Your task to perform on an android device: Add razer naga to the cart on bestbuy.com, then select checkout. Image 0: 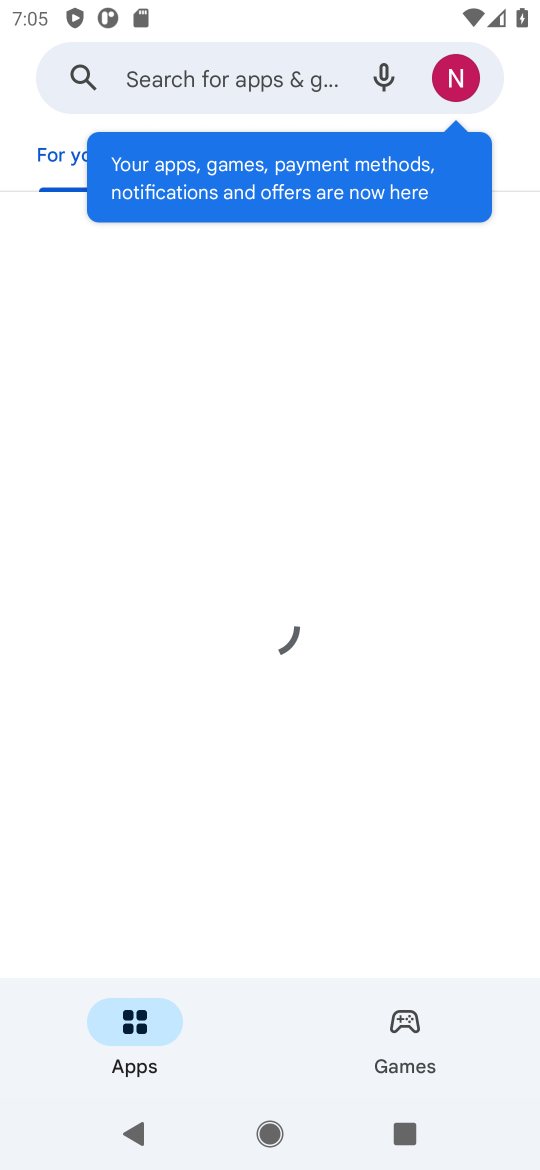
Step 0: press home button
Your task to perform on an android device: Add razer naga to the cart on bestbuy.com, then select checkout. Image 1: 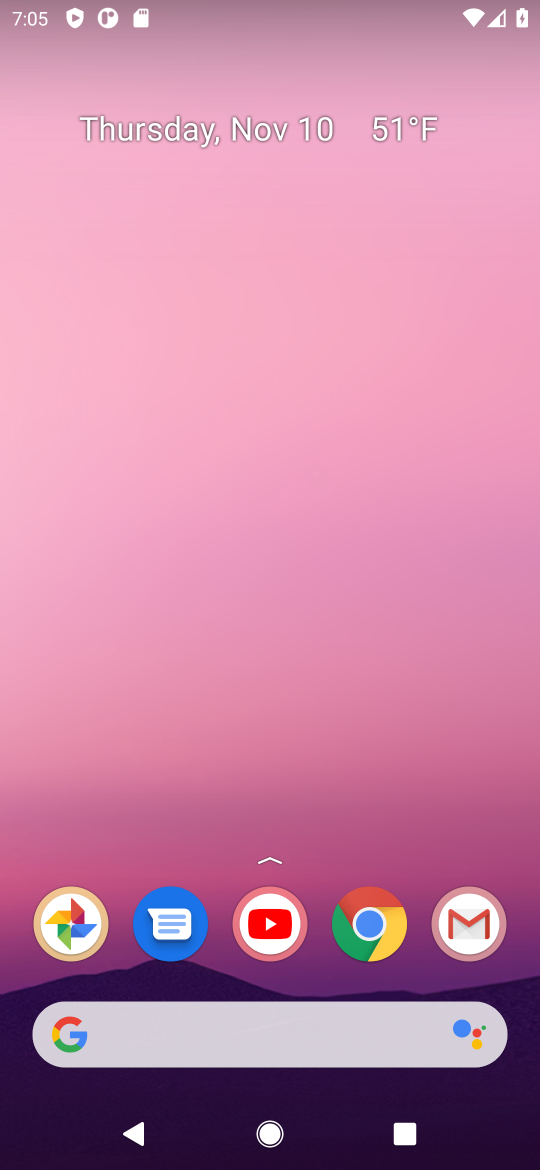
Step 1: click (364, 918)
Your task to perform on an android device: Add razer naga to the cart on bestbuy.com, then select checkout. Image 2: 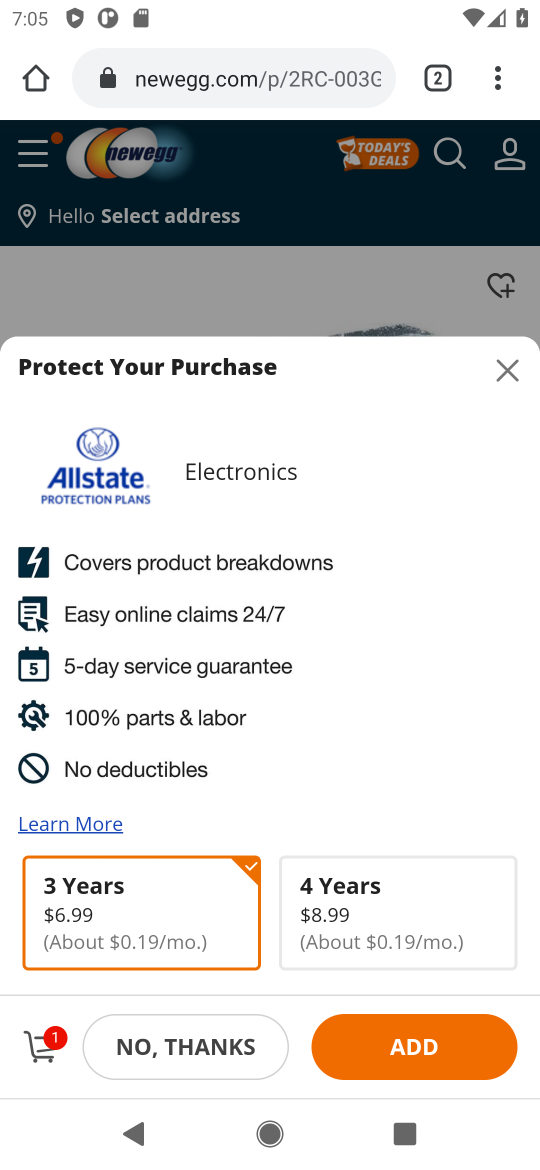
Step 2: click (210, 87)
Your task to perform on an android device: Add razer naga to the cart on bestbuy.com, then select checkout. Image 3: 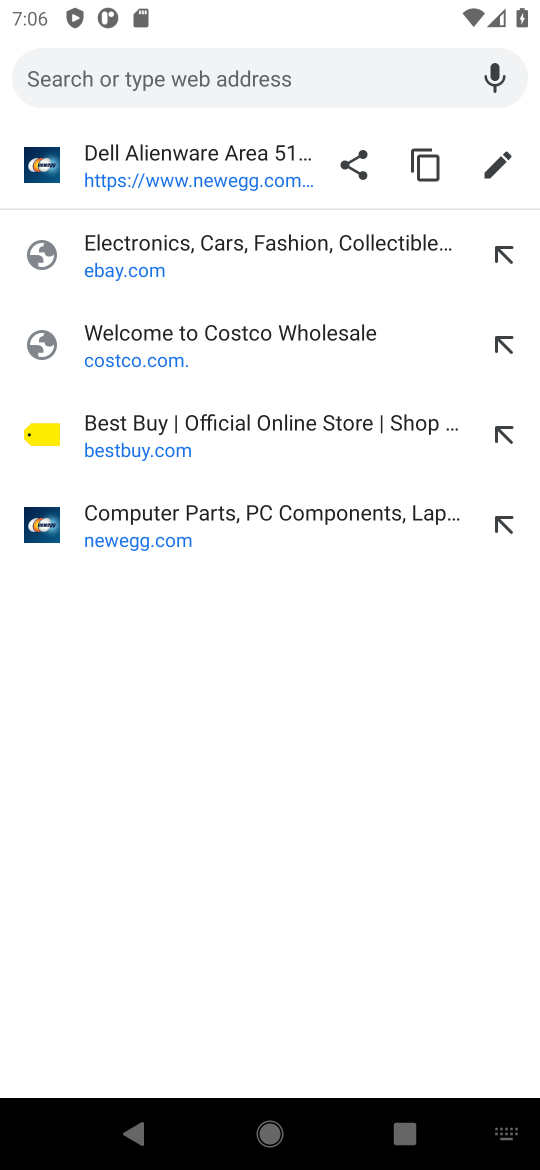
Step 3: click (114, 436)
Your task to perform on an android device: Add razer naga to the cart on bestbuy.com, then select checkout. Image 4: 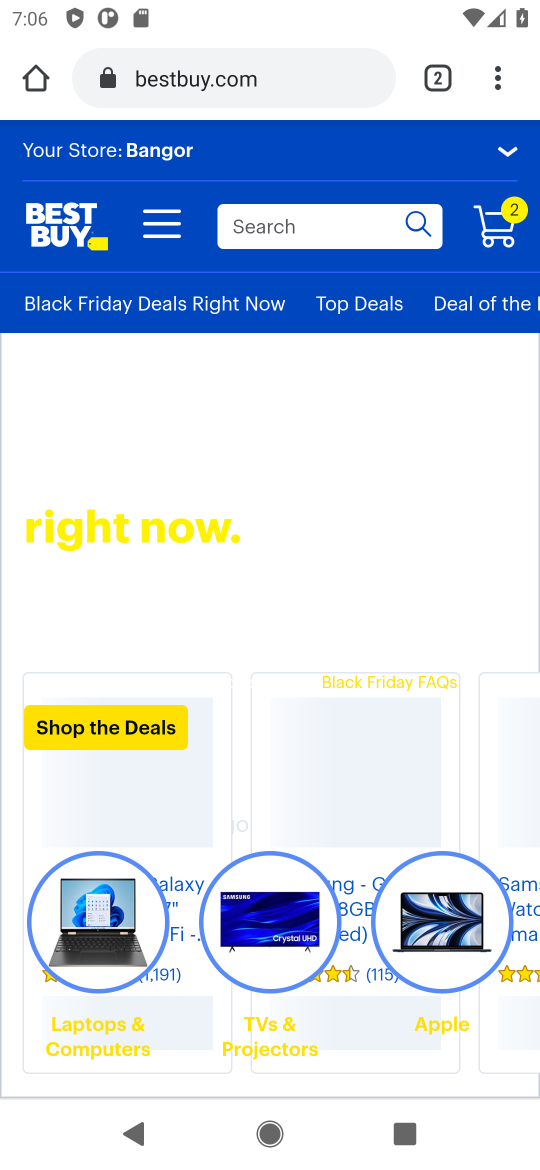
Step 4: click (333, 234)
Your task to perform on an android device: Add razer naga to the cart on bestbuy.com, then select checkout. Image 5: 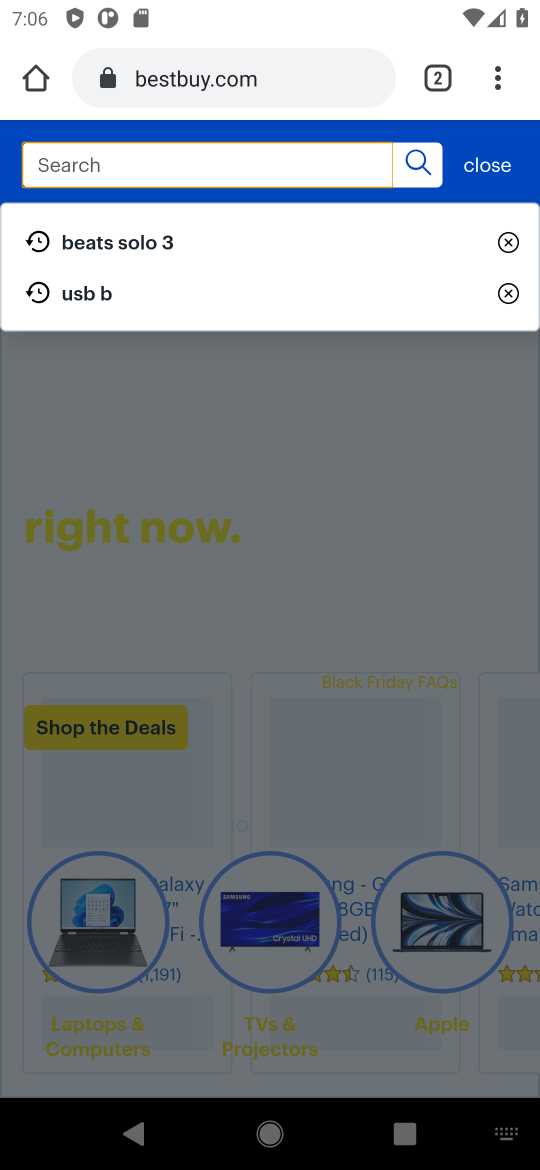
Step 5: type "razer naga"
Your task to perform on an android device: Add razer naga to the cart on bestbuy.com, then select checkout. Image 6: 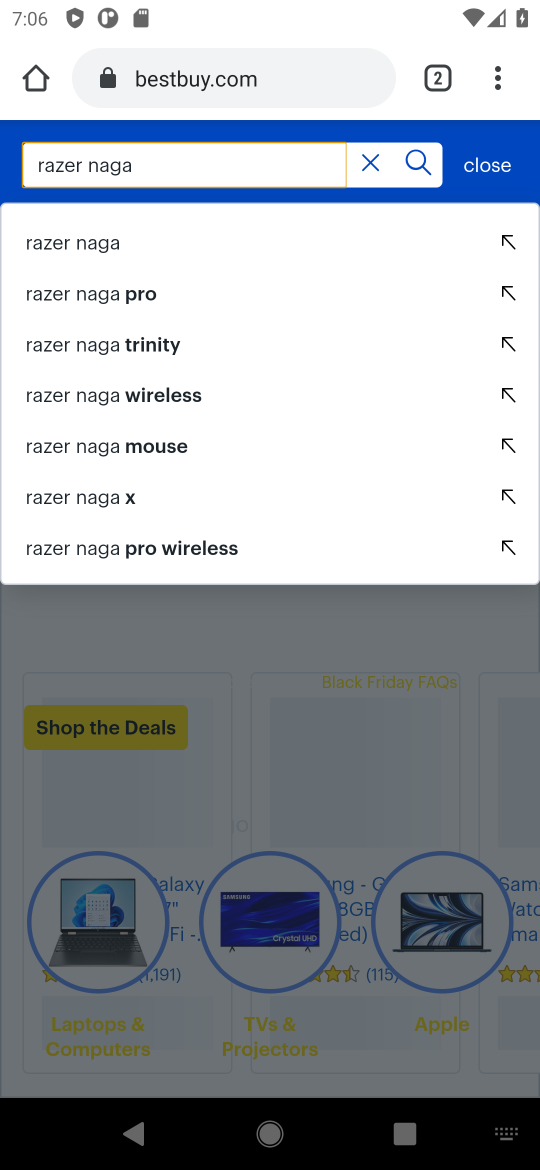
Step 6: click (56, 251)
Your task to perform on an android device: Add razer naga to the cart on bestbuy.com, then select checkout. Image 7: 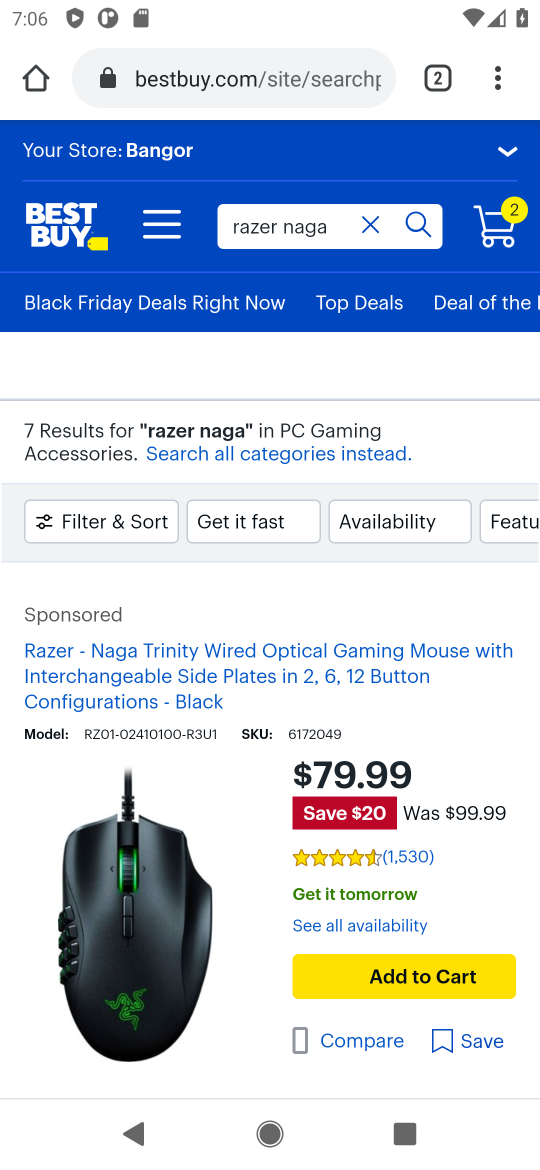
Step 7: drag from (208, 822) to (213, 454)
Your task to perform on an android device: Add razer naga to the cart on bestbuy.com, then select checkout. Image 8: 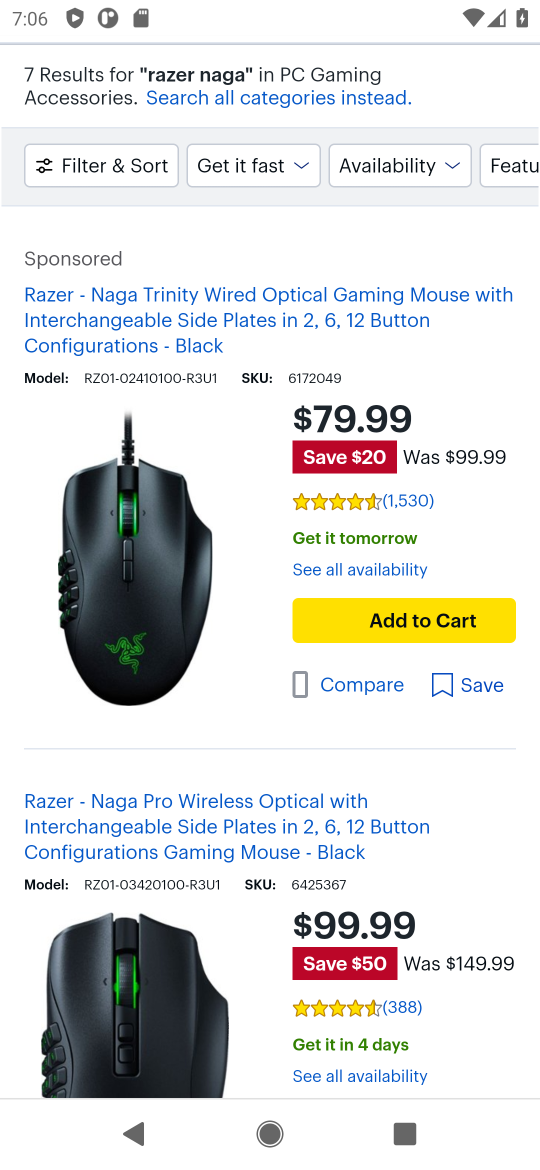
Step 8: click (405, 623)
Your task to perform on an android device: Add razer naga to the cart on bestbuy.com, then select checkout. Image 9: 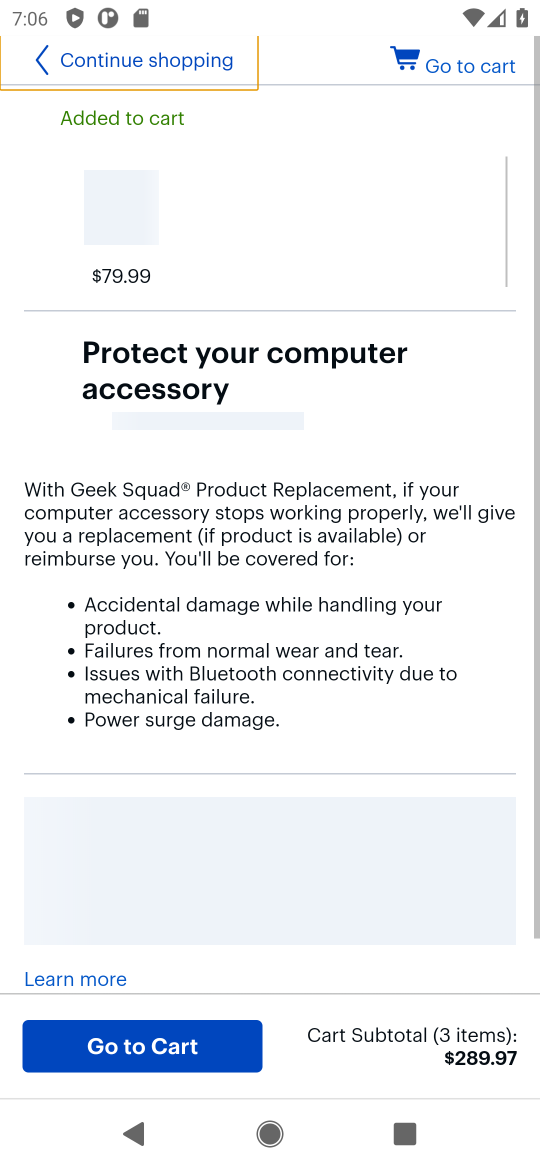
Step 9: click (461, 75)
Your task to perform on an android device: Add razer naga to the cart on bestbuy.com, then select checkout. Image 10: 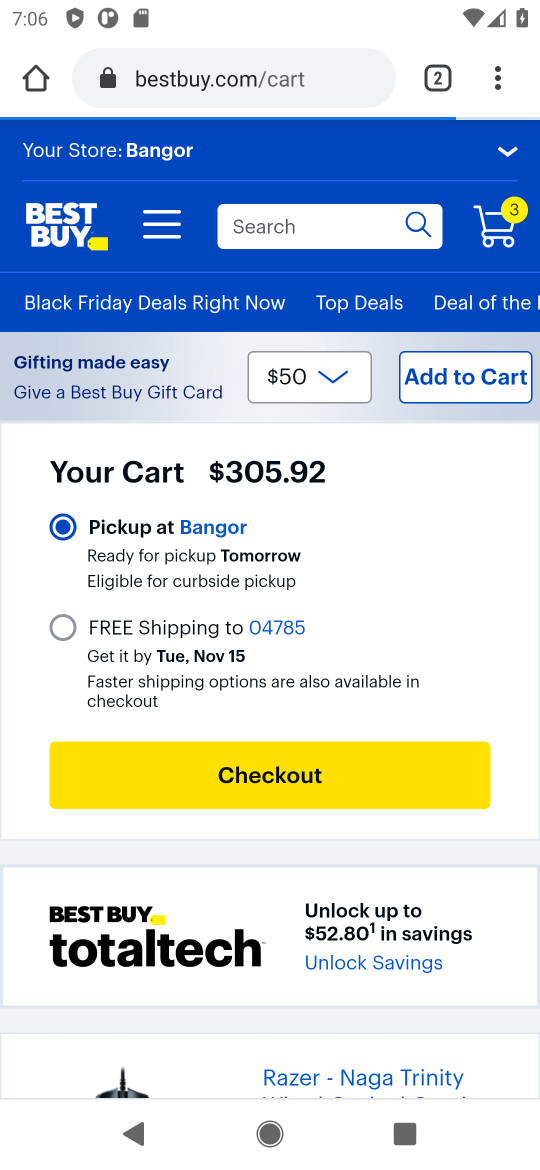
Step 10: click (261, 784)
Your task to perform on an android device: Add razer naga to the cart on bestbuy.com, then select checkout. Image 11: 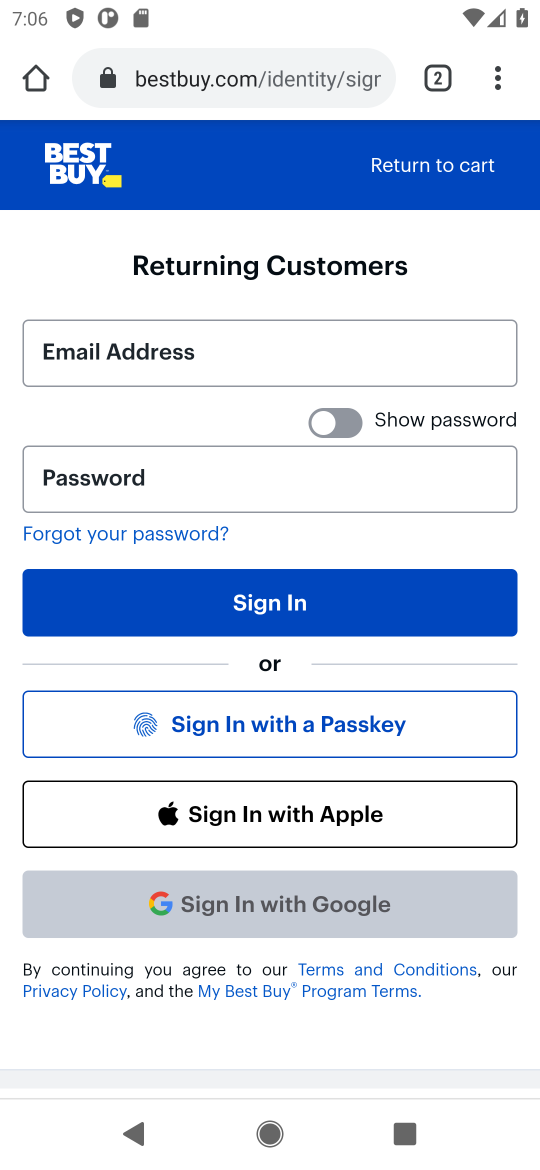
Step 11: task complete